Your task to perform on an android device: Add bose soundlink mini to the cart on costco, then select checkout. Image 0: 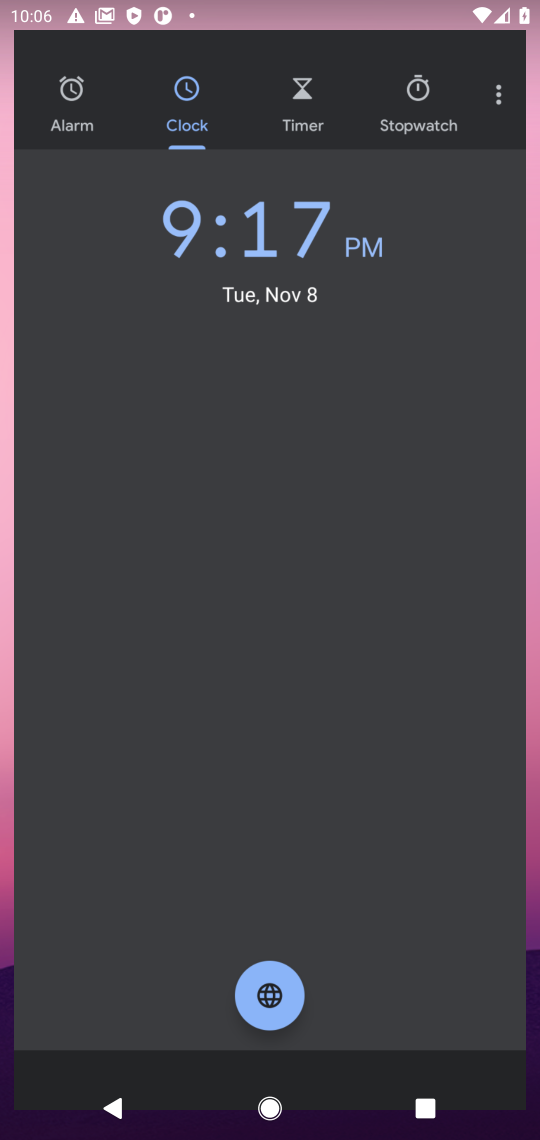
Step 0: click (29, 1100)
Your task to perform on an android device: Add bose soundlink mini to the cart on costco, then select checkout. Image 1: 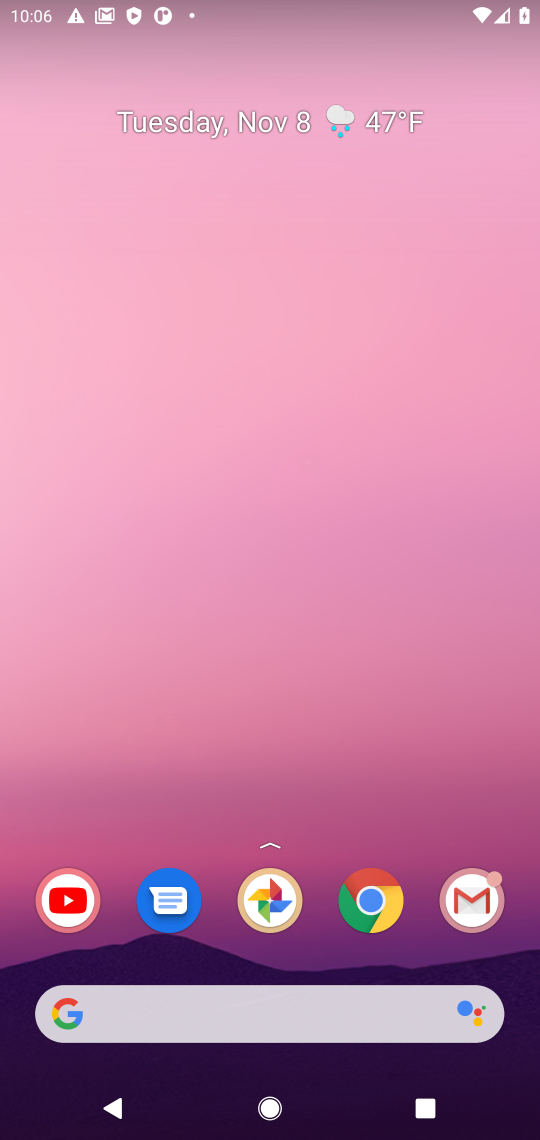
Step 1: click (400, 889)
Your task to perform on an android device: Add bose soundlink mini to the cart on costco, then select checkout. Image 2: 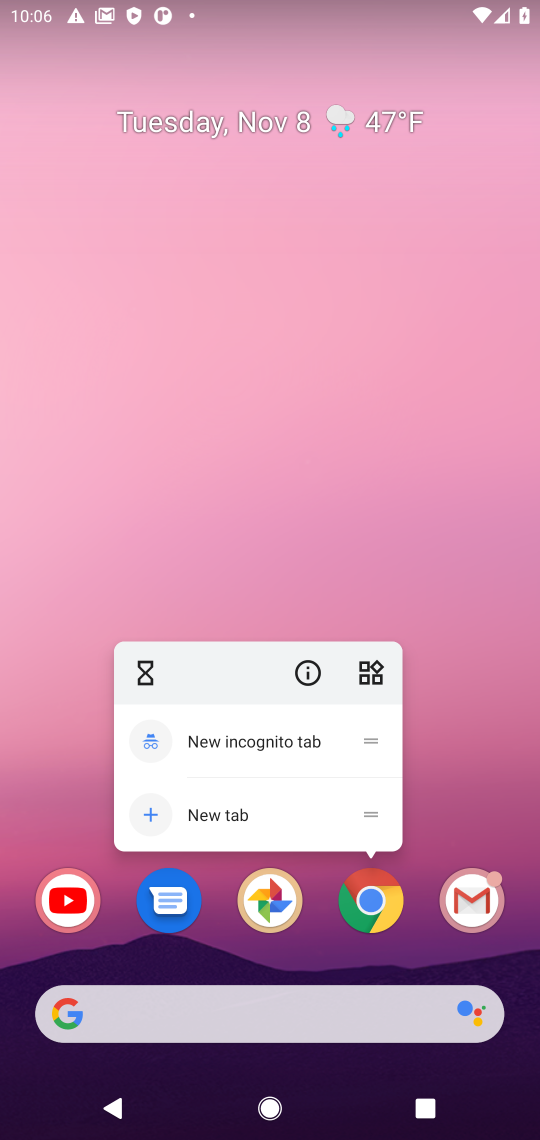
Step 2: click (377, 901)
Your task to perform on an android device: Add bose soundlink mini to the cart on costco, then select checkout. Image 3: 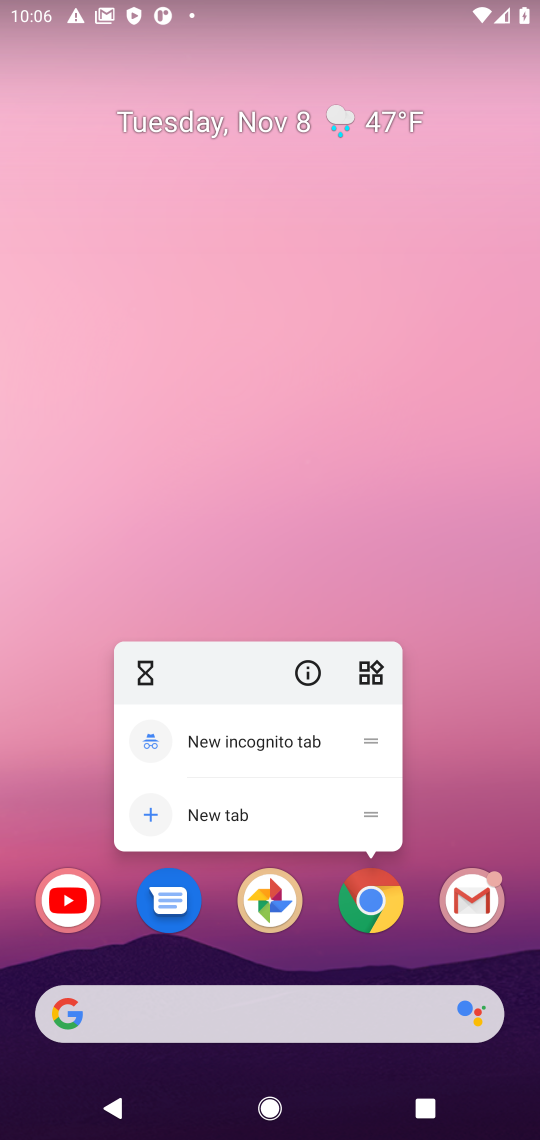
Step 3: press home button
Your task to perform on an android device: Add bose soundlink mini to the cart on costco, then select checkout. Image 4: 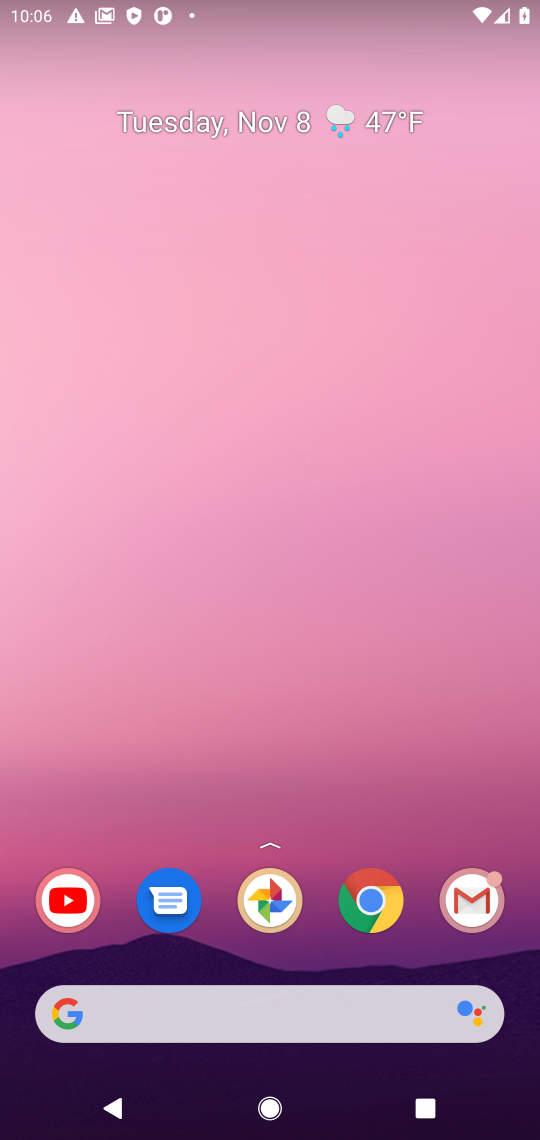
Step 4: click (354, 912)
Your task to perform on an android device: Add bose soundlink mini to the cart on costco, then select checkout. Image 5: 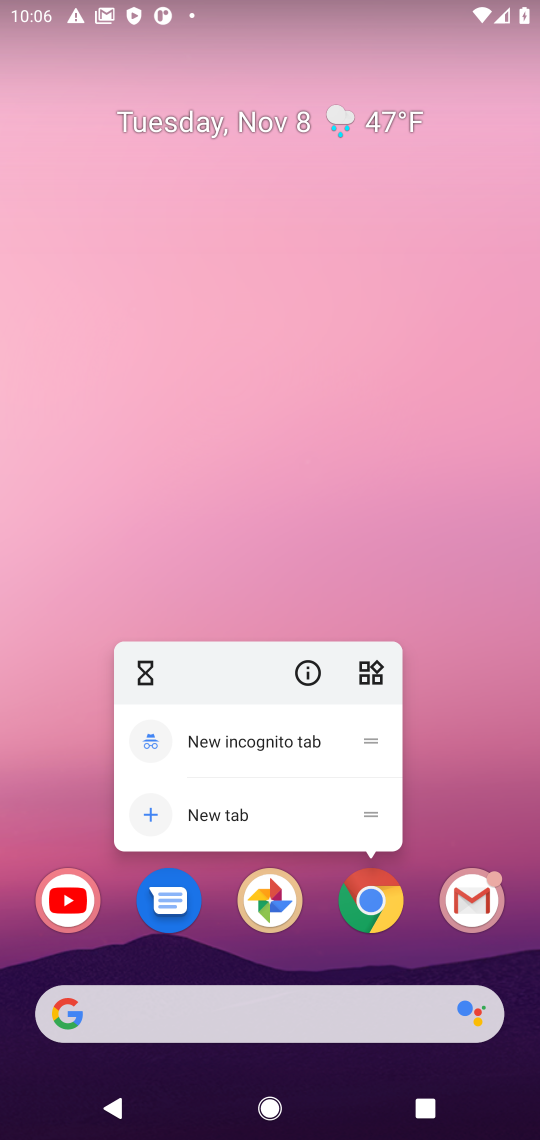
Step 5: click (364, 895)
Your task to perform on an android device: Add bose soundlink mini to the cart on costco, then select checkout. Image 6: 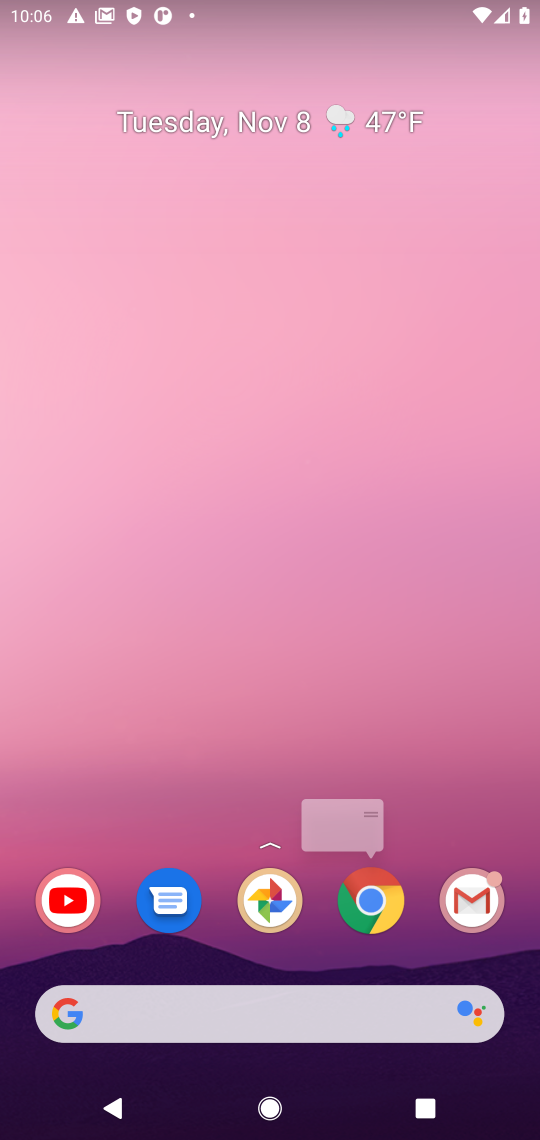
Step 6: click (364, 891)
Your task to perform on an android device: Add bose soundlink mini to the cart on costco, then select checkout. Image 7: 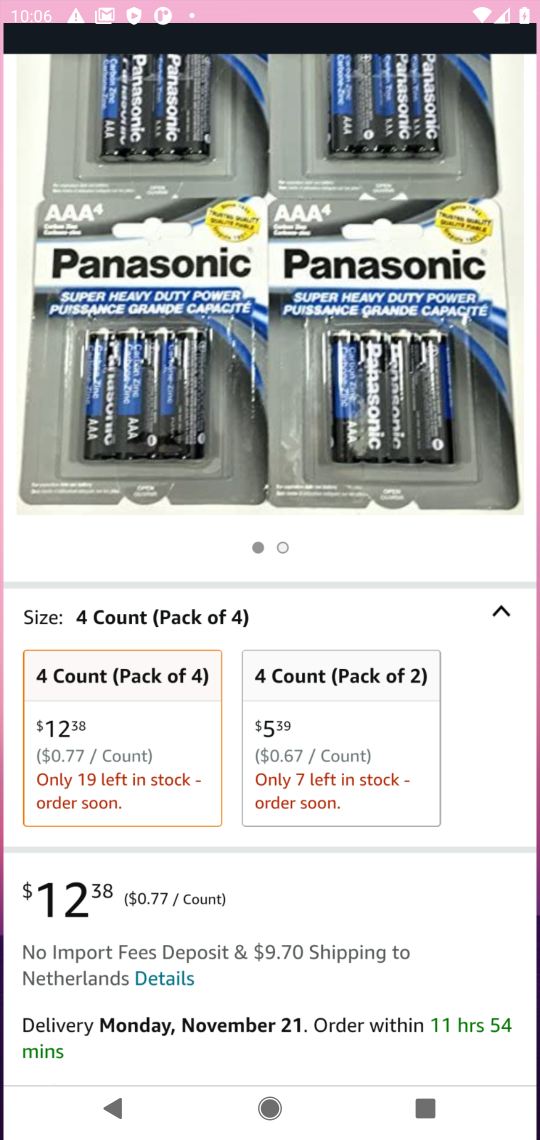
Step 7: click (379, 916)
Your task to perform on an android device: Add bose soundlink mini to the cart on costco, then select checkout. Image 8: 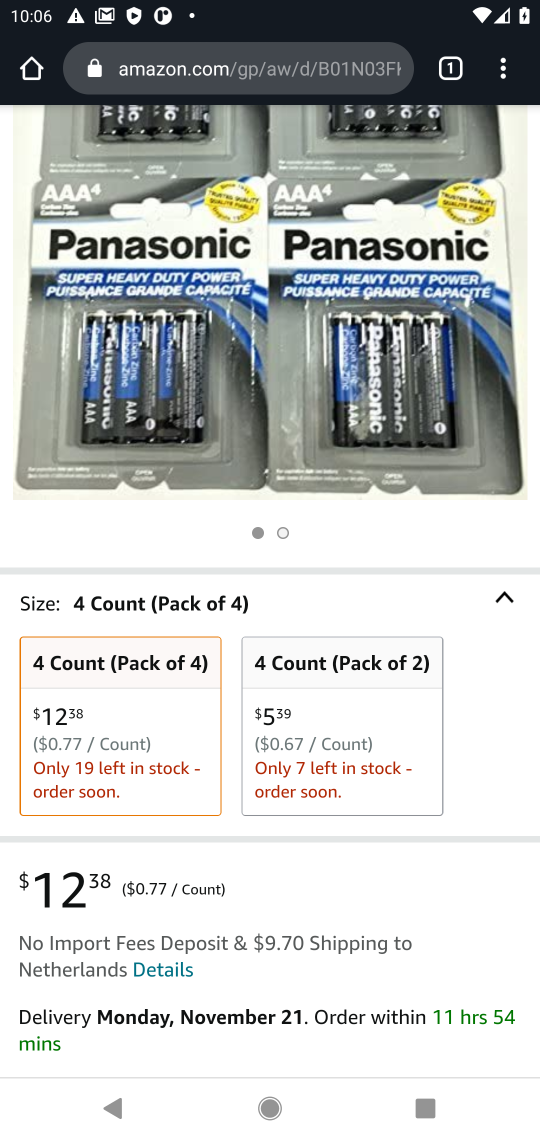
Step 8: click (202, 58)
Your task to perform on an android device: Add bose soundlink mini to the cart on costco, then select checkout. Image 9: 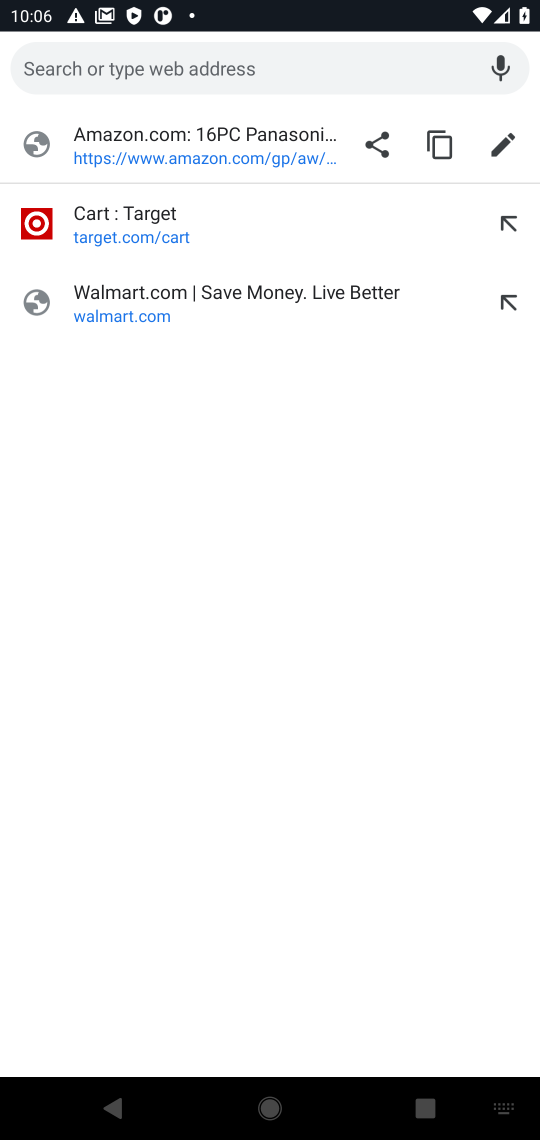
Step 9: type "costco"
Your task to perform on an android device: Add bose soundlink mini to the cart on costco, then select checkout. Image 10: 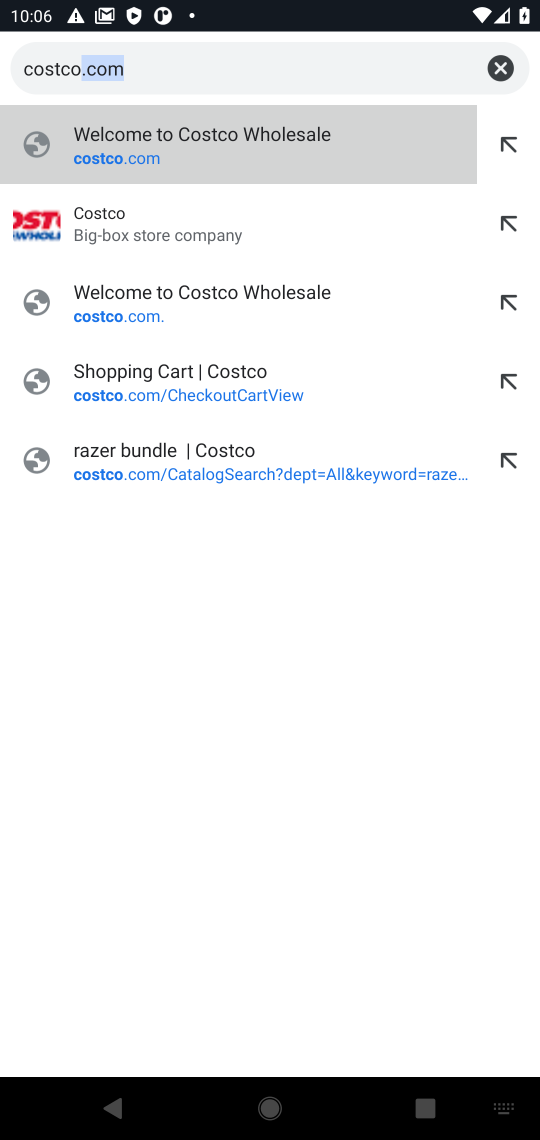
Step 10: click (128, 216)
Your task to perform on an android device: Add bose soundlink mini to the cart on costco, then select checkout. Image 11: 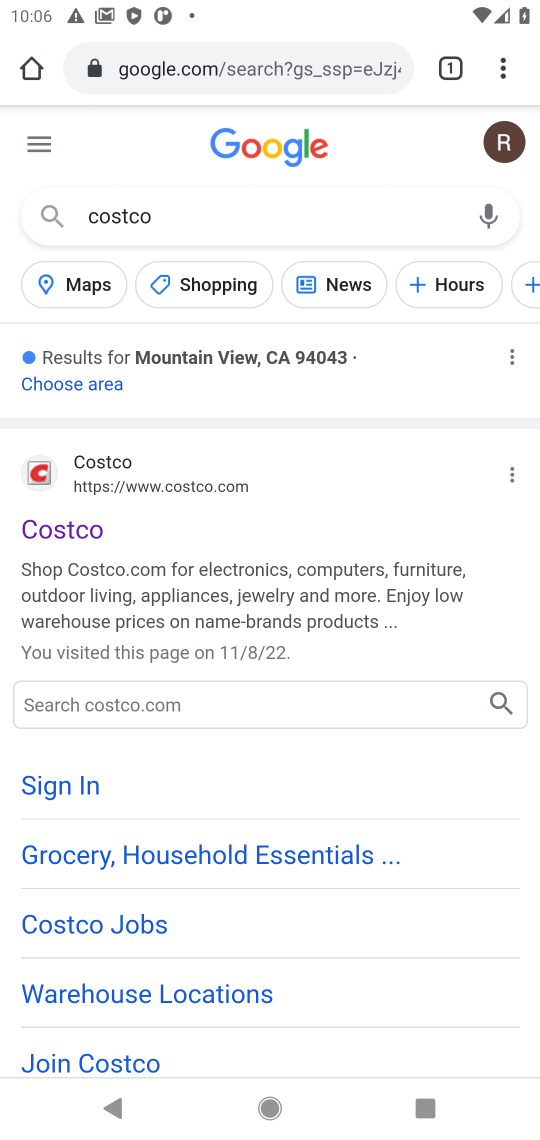
Step 11: click (81, 535)
Your task to perform on an android device: Add bose soundlink mini to the cart on costco, then select checkout. Image 12: 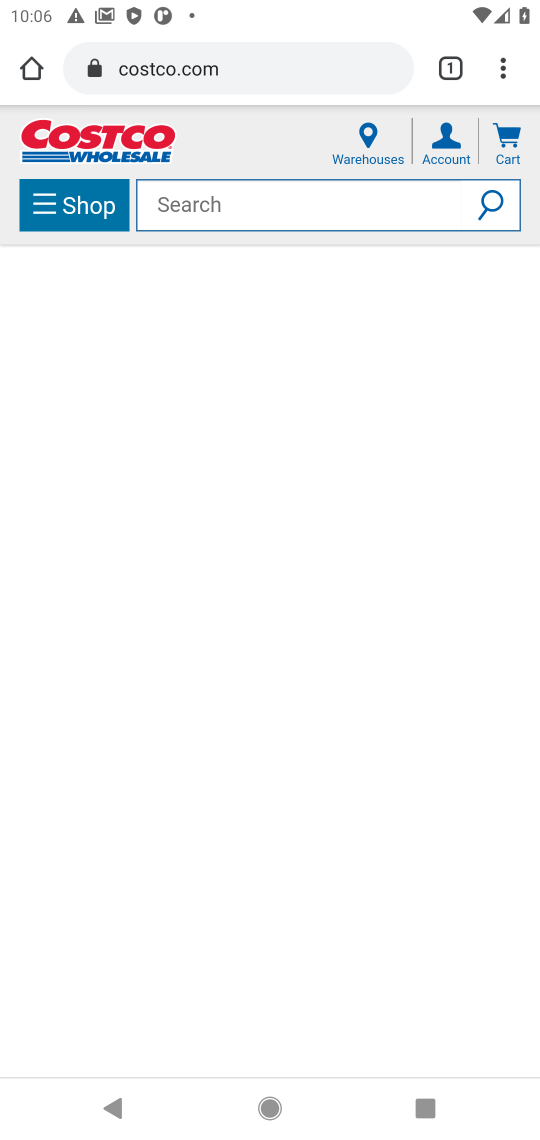
Step 12: click (226, 217)
Your task to perform on an android device: Add bose soundlink mini to the cart on costco, then select checkout. Image 13: 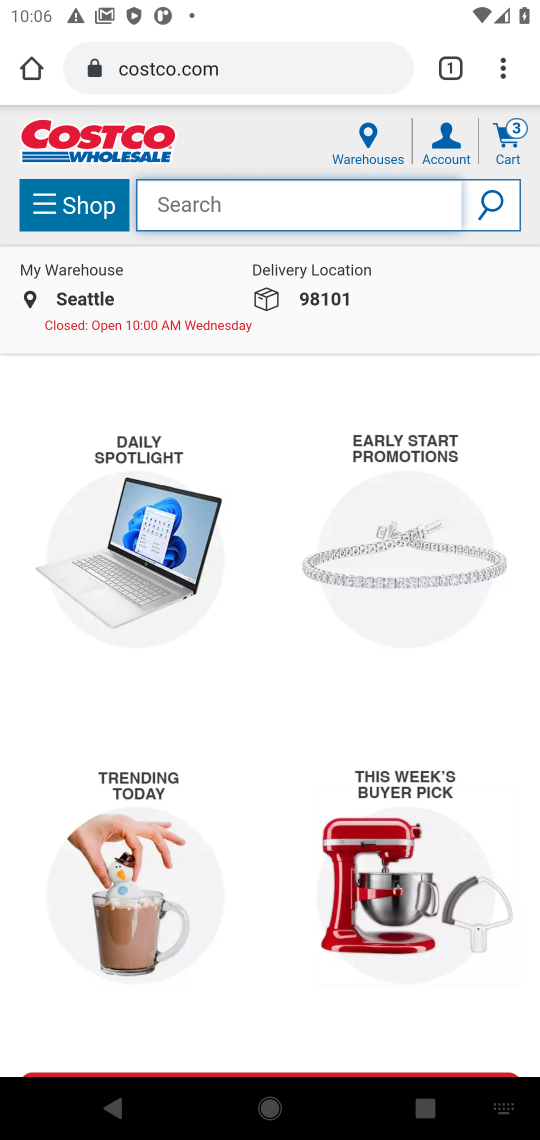
Step 13: type "bose soundlink mini"
Your task to perform on an android device: Add bose soundlink mini to the cart on costco, then select checkout. Image 14: 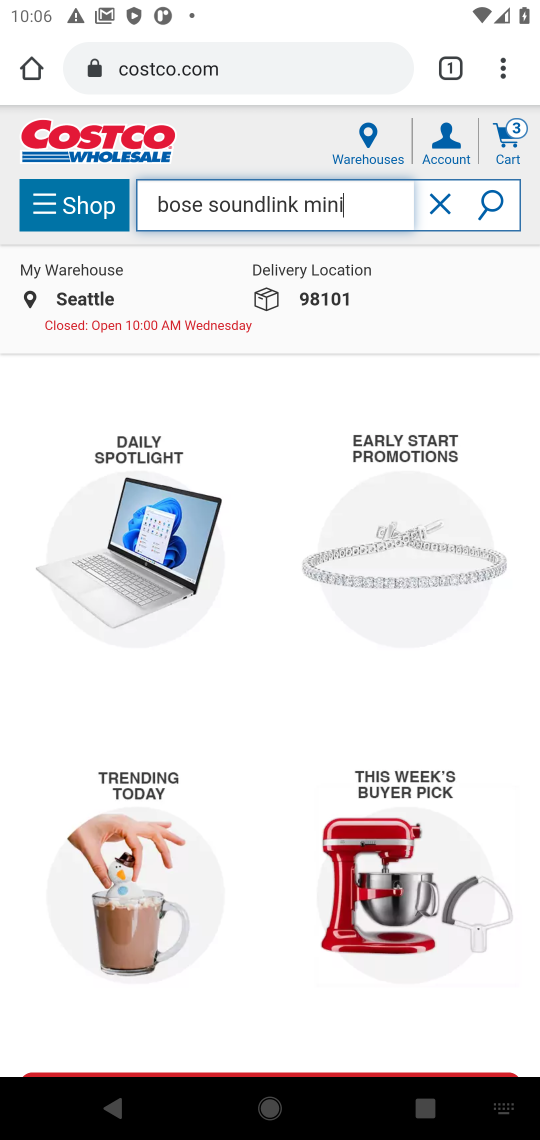
Step 14: type ""
Your task to perform on an android device: Add bose soundlink mini to the cart on costco, then select checkout. Image 15: 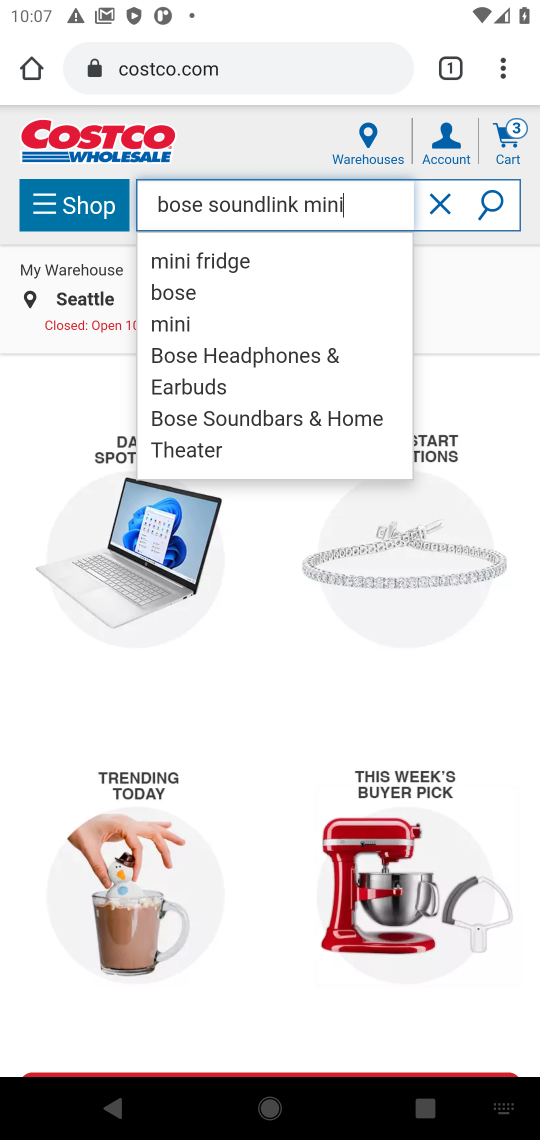
Step 15: click (167, 316)
Your task to perform on an android device: Add bose soundlink mini to the cart on costco, then select checkout. Image 16: 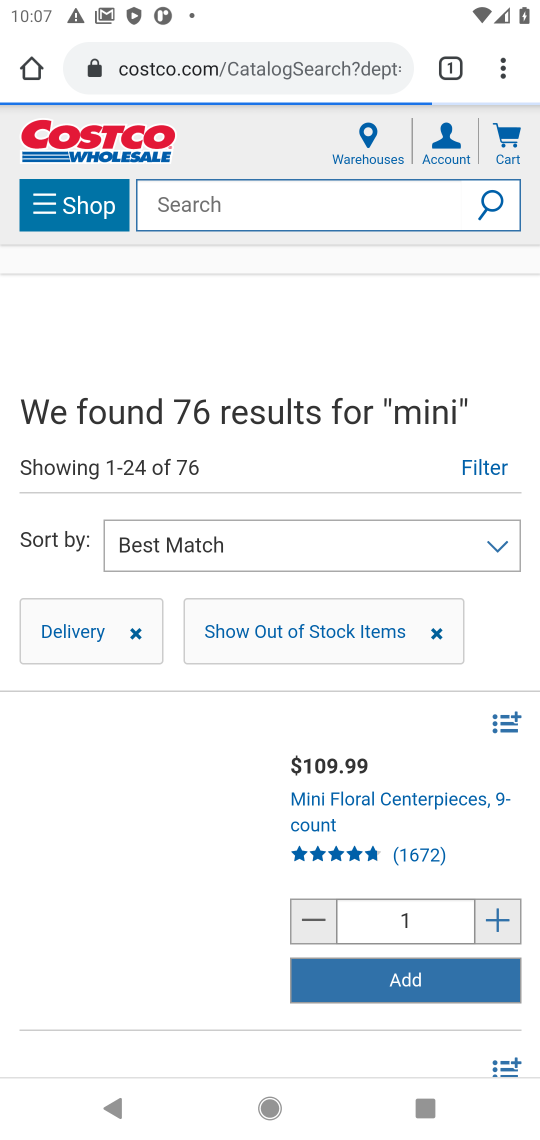
Step 16: click (438, 201)
Your task to perform on an android device: Add bose soundlink mini to the cart on costco, then select checkout. Image 17: 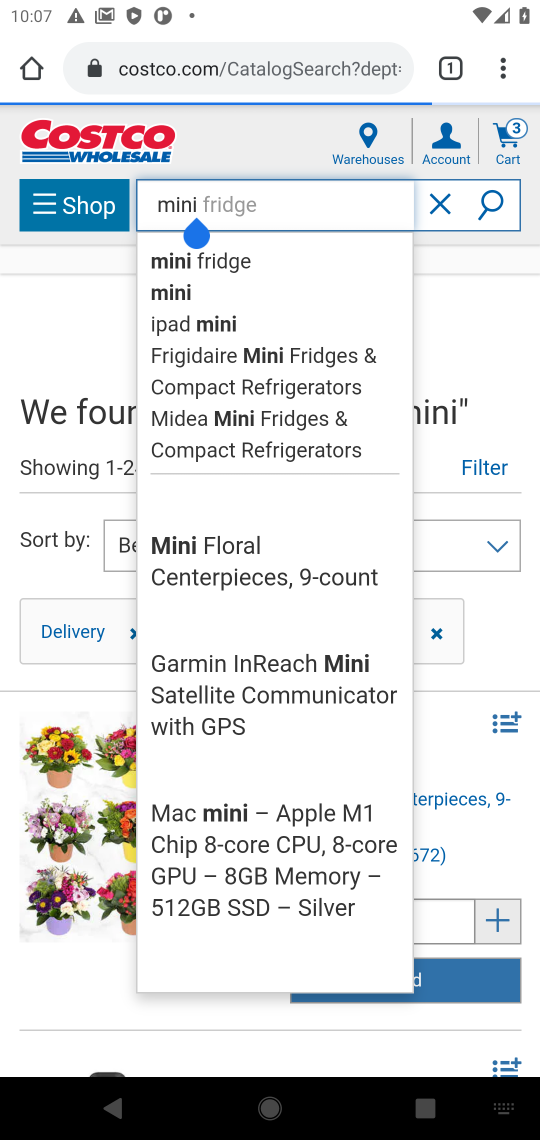
Step 17: click (440, 199)
Your task to perform on an android device: Add bose soundlink mini to the cart on costco, then select checkout. Image 18: 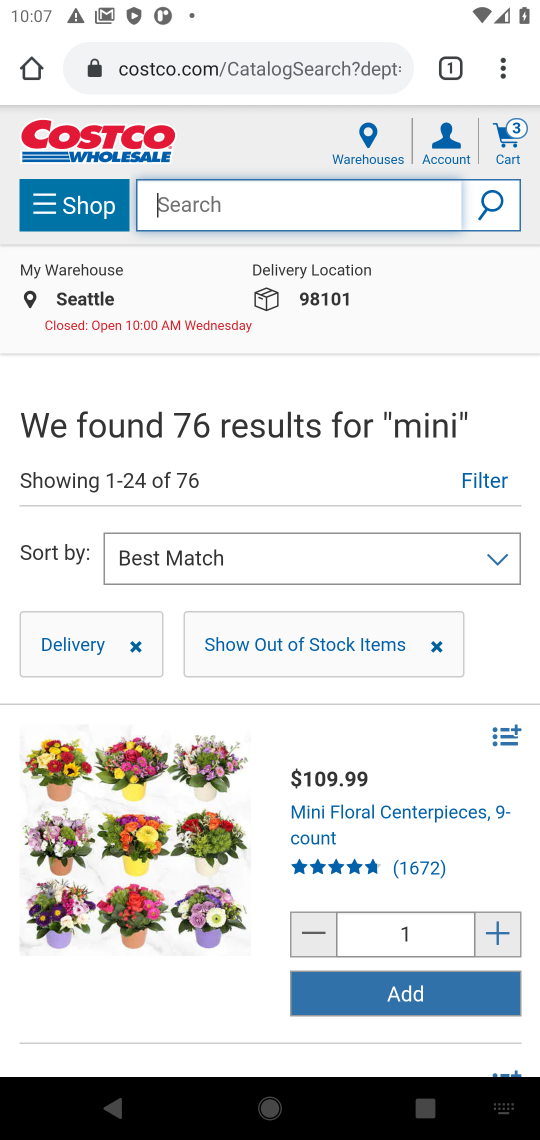
Step 18: type "bose soundlink mini"
Your task to perform on an android device: Add bose soundlink mini to the cart on costco, then select checkout. Image 19: 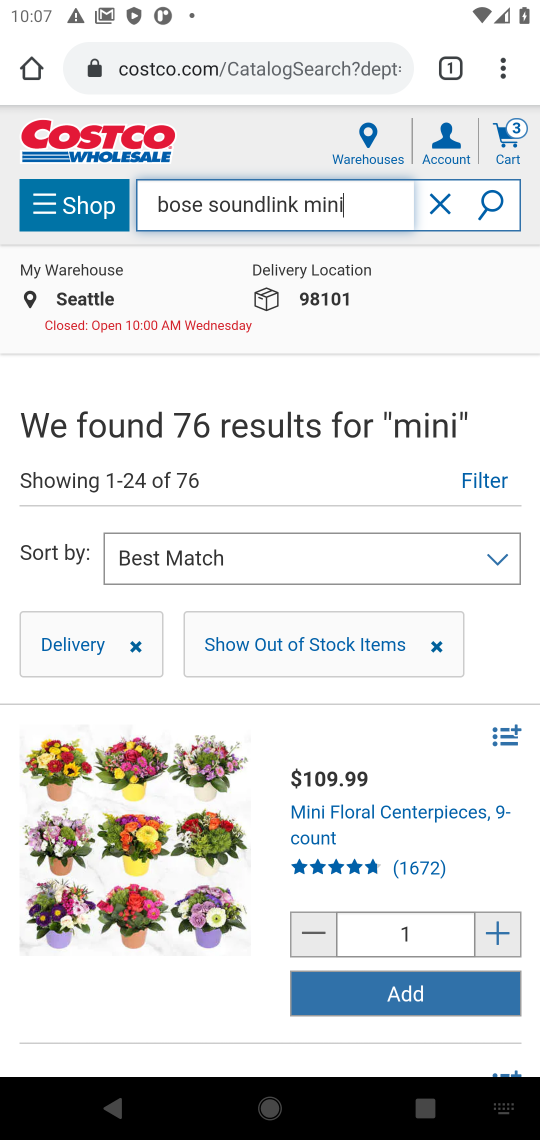
Step 19: type ""
Your task to perform on an android device: Add bose soundlink mini to the cart on costco, then select checkout. Image 20: 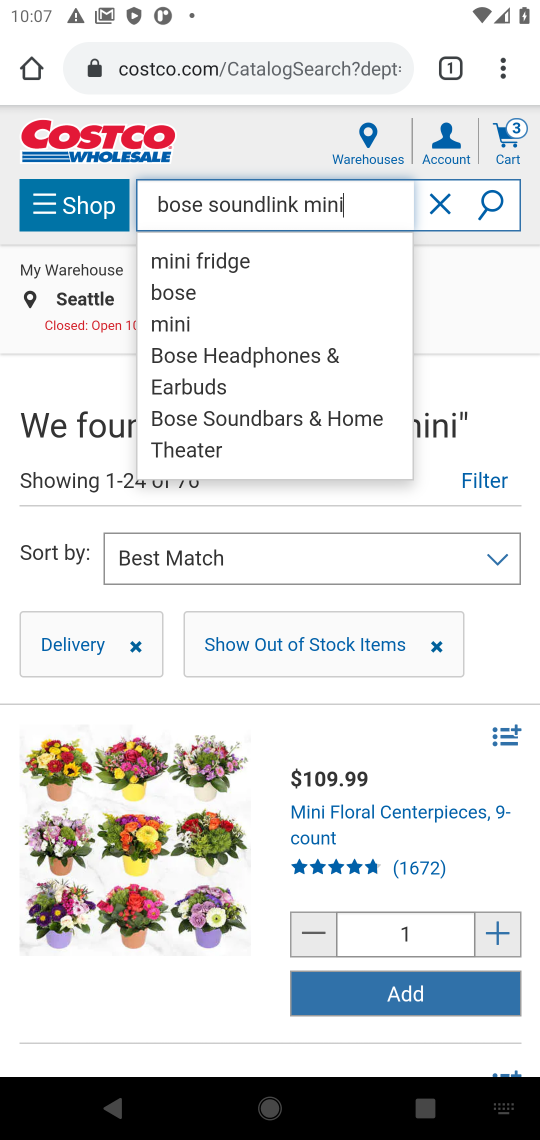
Step 20: click (161, 307)
Your task to perform on an android device: Add bose soundlink mini to the cart on costco, then select checkout. Image 21: 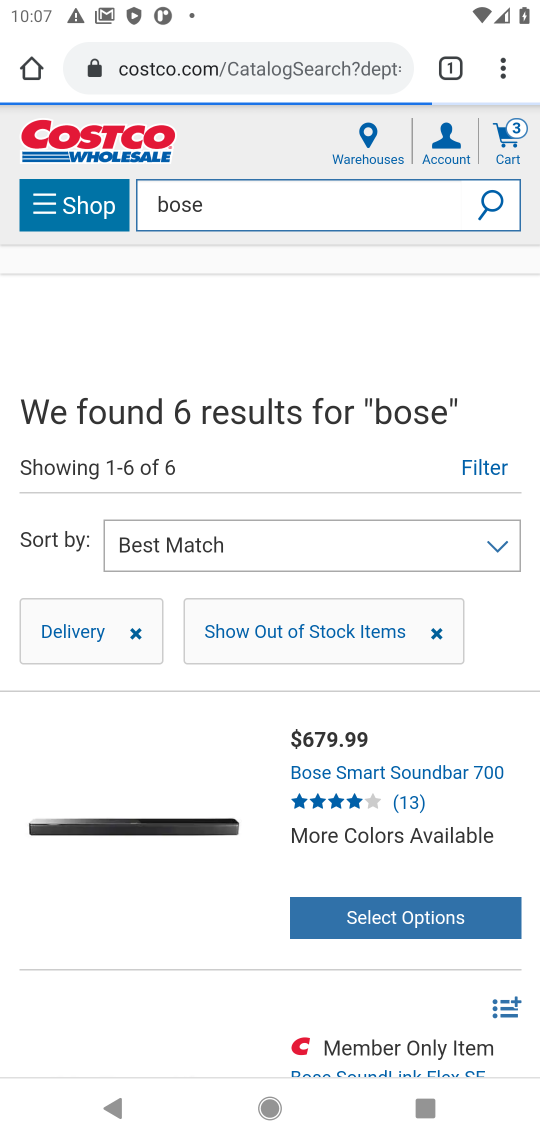
Step 21: drag from (212, 859) to (272, 430)
Your task to perform on an android device: Add bose soundlink mini to the cart on costco, then select checkout. Image 22: 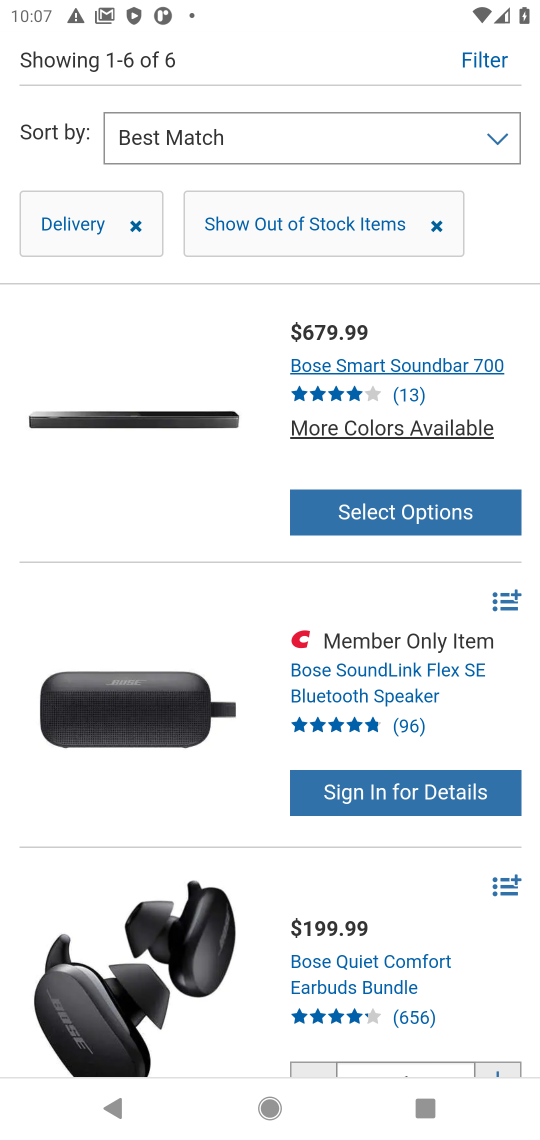
Step 22: drag from (242, 904) to (327, 474)
Your task to perform on an android device: Add bose soundlink mini to the cart on costco, then select checkout. Image 23: 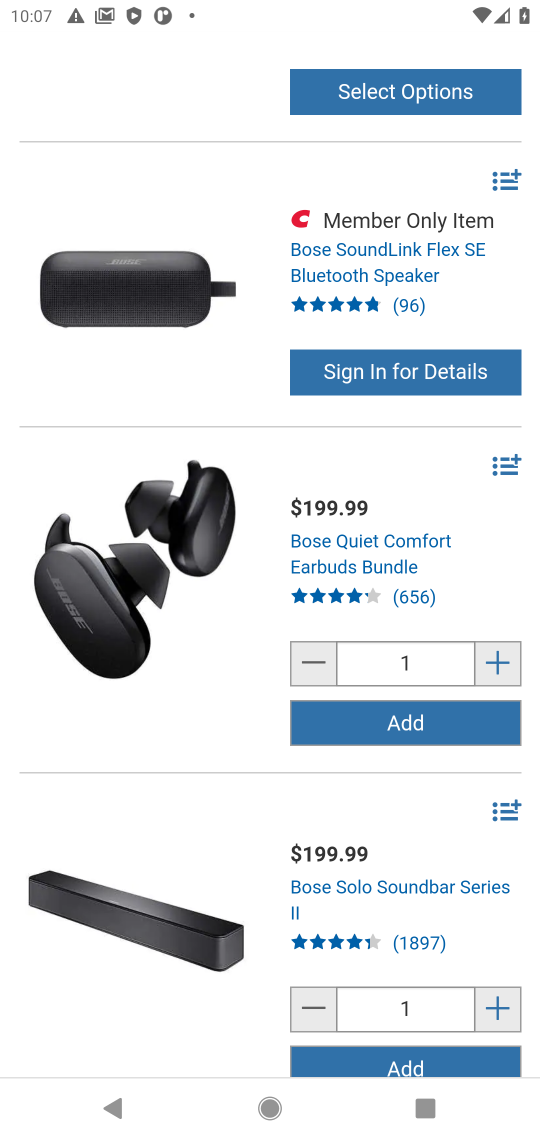
Step 23: drag from (303, 944) to (235, 650)
Your task to perform on an android device: Add bose soundlink mini to the cart on costco, then select checkout. Image 24: 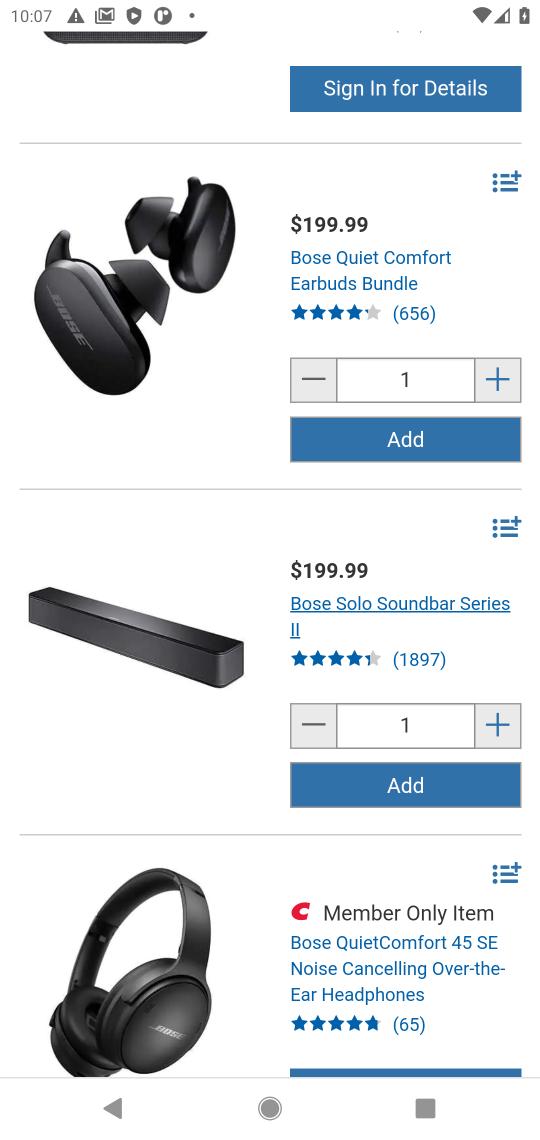
Step 24: drag from (284, 989) to (299, 469)
Your task to perform on an android device: Add bose soundlink mini to the cart on costco, then select checkout. Image 25: 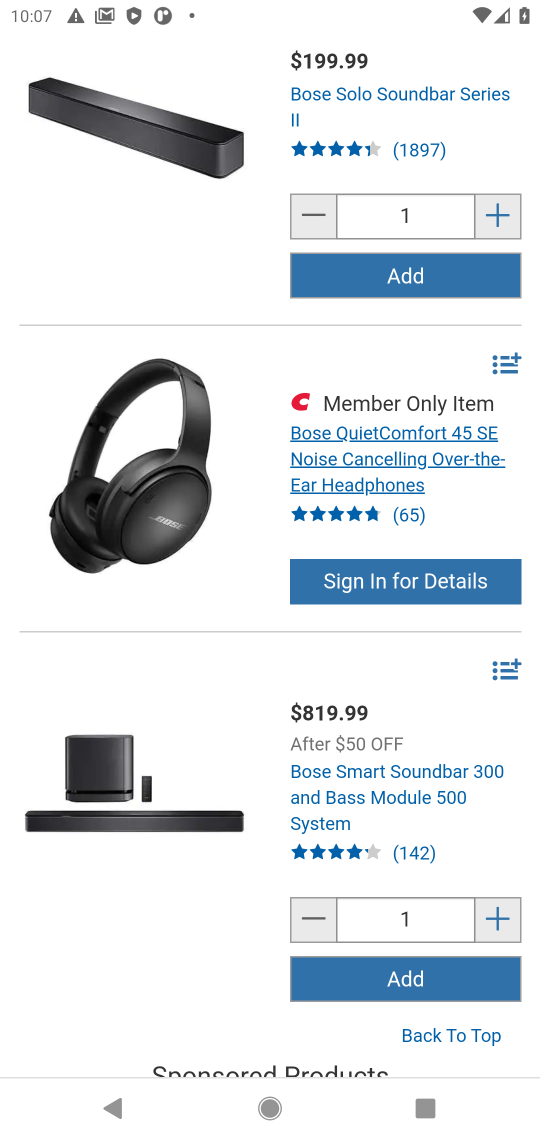
Step 25: click (376, 435)
Your task to perform on an android device: Add bose soundlink mini to the cart on costco, then select checkout. Image 26: 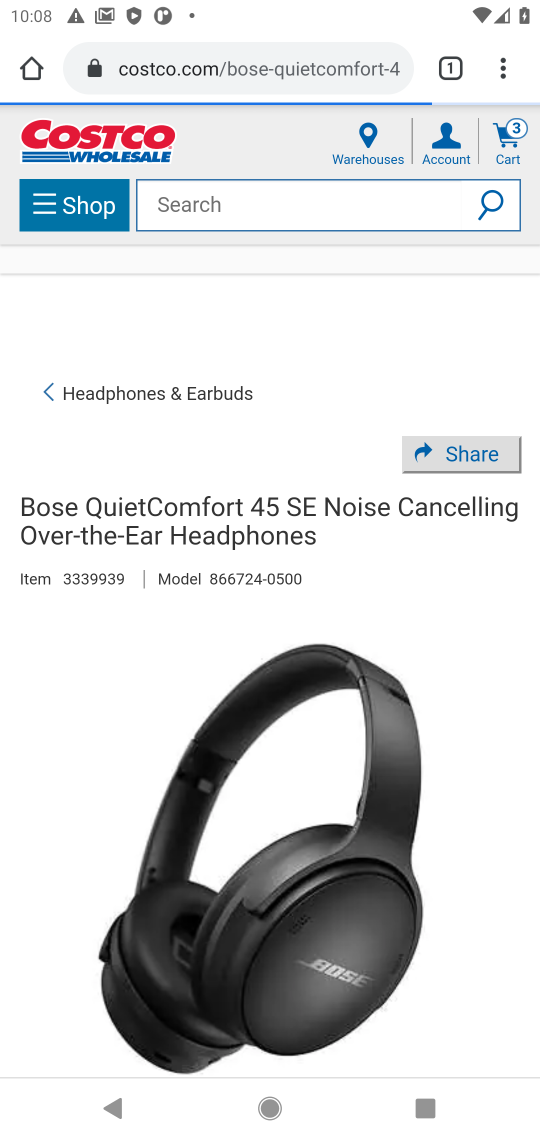
Step 26: drag from (444, 848) to (381, 399)
Your task to perform on an android device: Add bose soundlink mini to the cart on costco, then select checkout. Image 27: 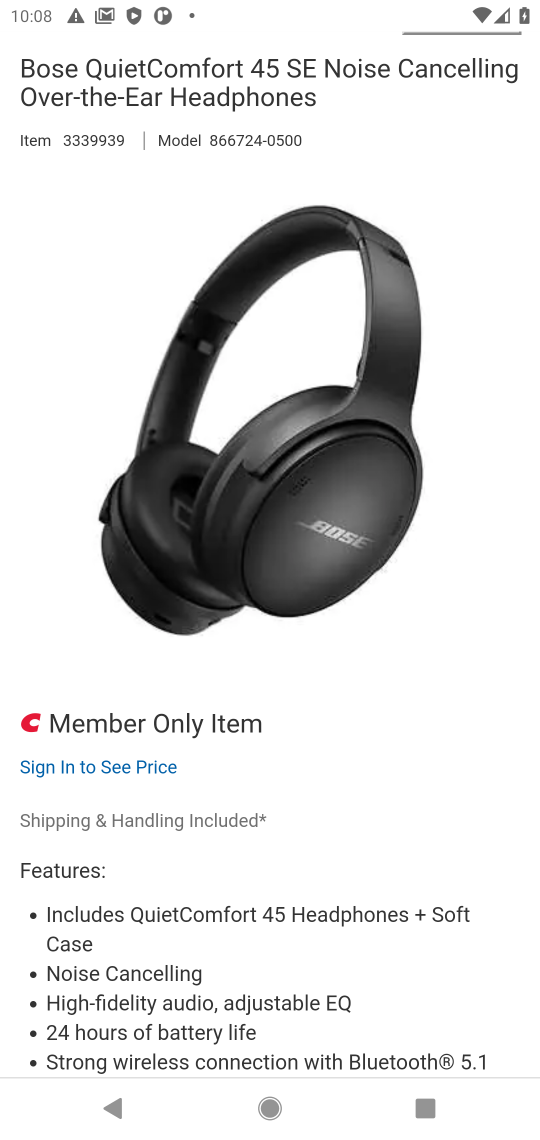
Step 27: drag from (378, 824) to (381, 353)
Your task to perform on an android device: Add bose soundlink mini to the cart on costco, then select checkout. Image 28: 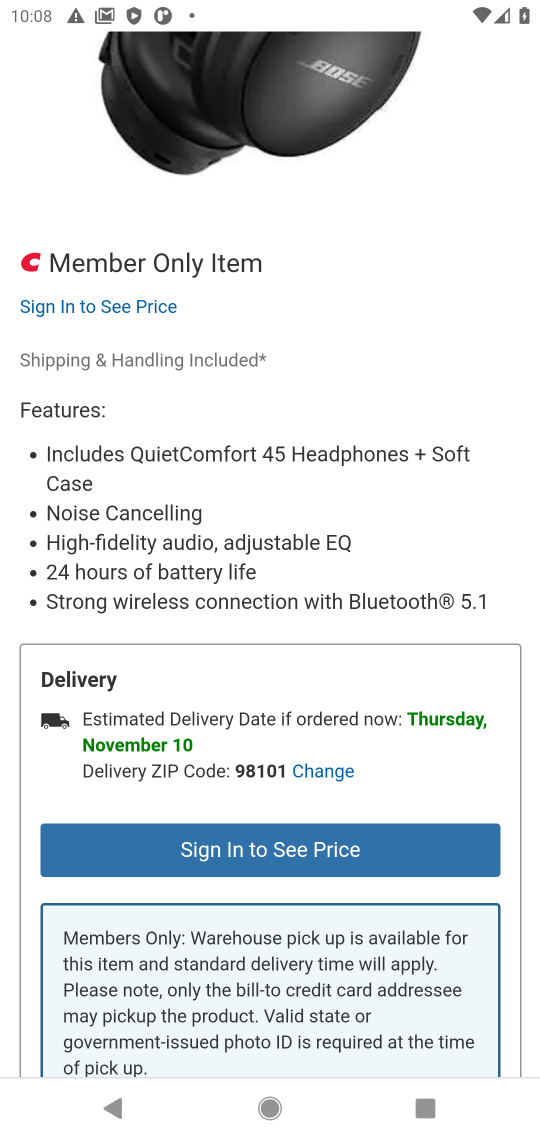
Step 28: drag from (257, 875) to (224, 320)
Your task to perform on an android device: Add bose soundlink mini to the cart on costco, then select checkout. Image 29: 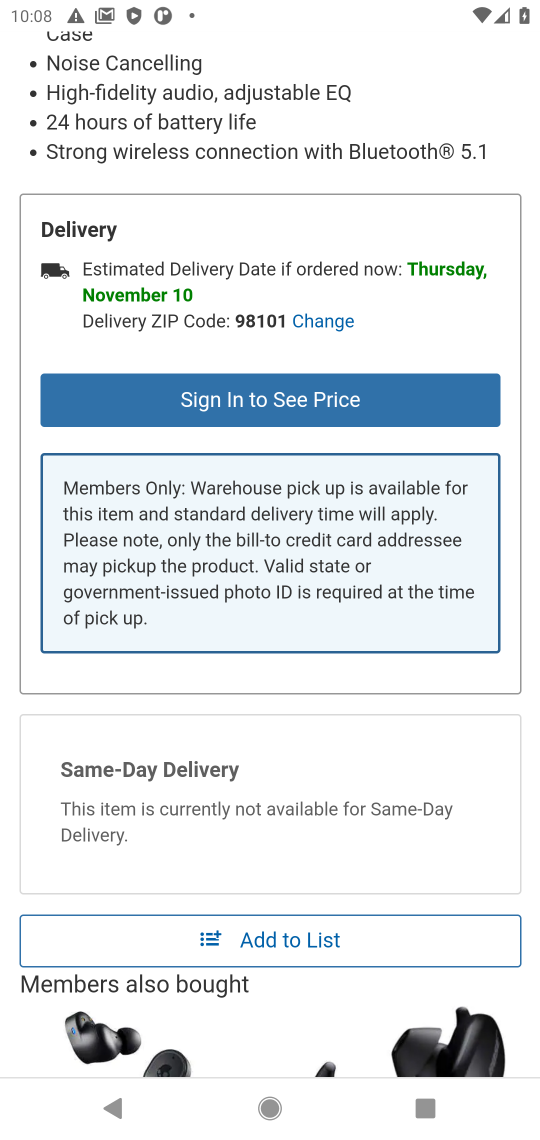
Step 29: click (290, 934)
Your task to perform on an android device: Add bose soundlink mini to the cart on costco, then select checkout. Image 30: 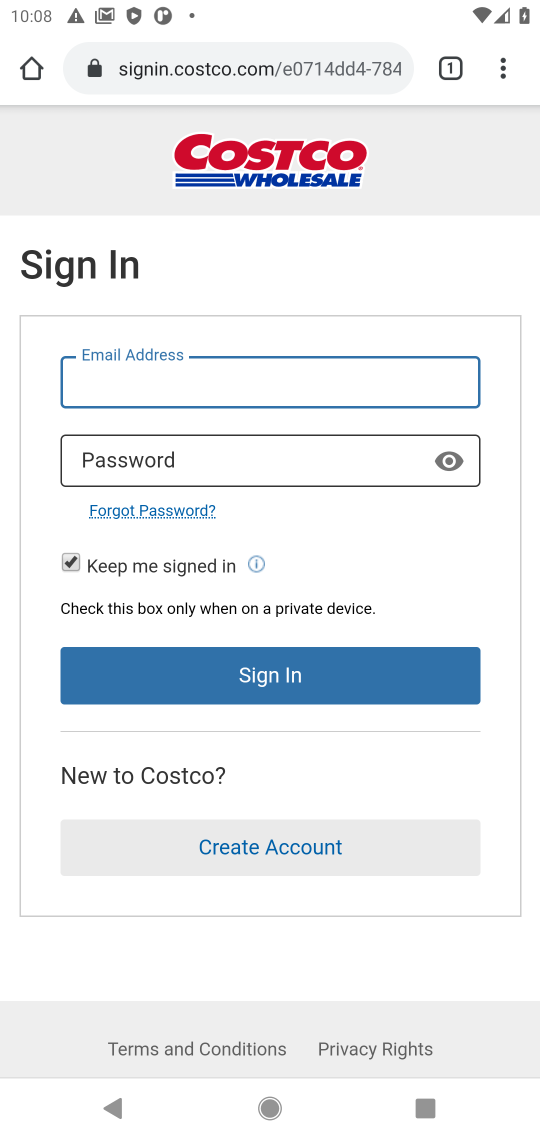
Step 30: task complete